Your task to perform on an android device: Find coffee shops on Maps Image 0: 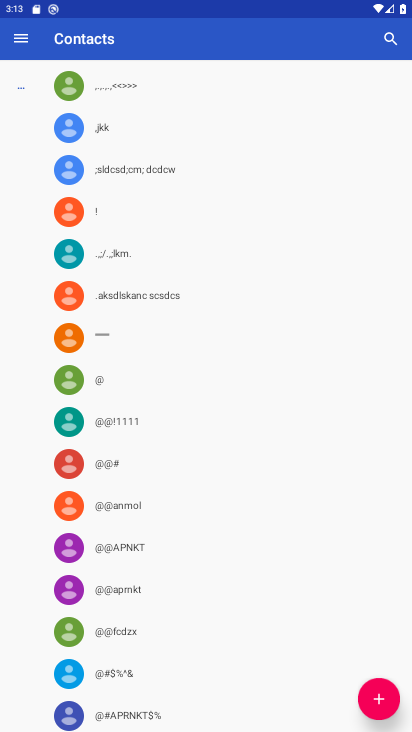
Step 0: press home button
Your task to perform on an android device: Find coffee shops on Maps Image 1: 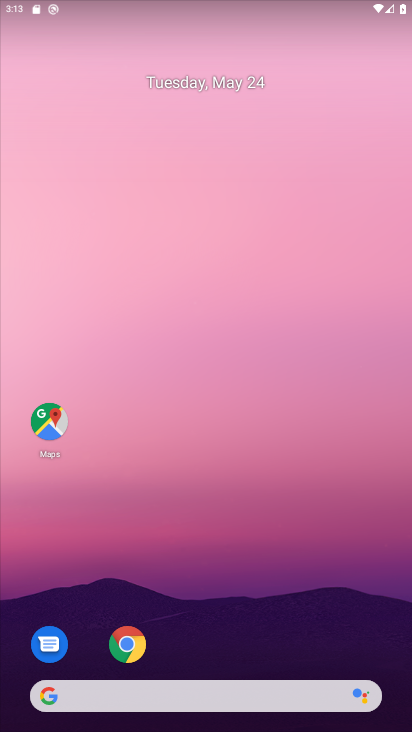
Step 1: drag from (338, 633) to (307, 156)
Your task to perform on an android device: Find coffee shops on Maps Image 2: 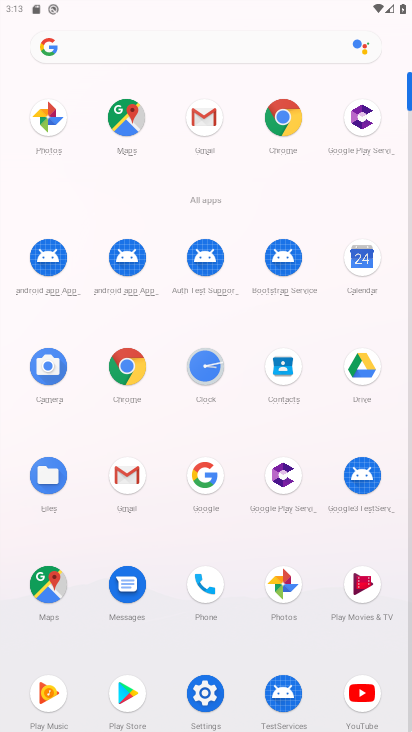
Step 2: click (55, 595)
Your task to perform on an android device: Find coffee shops on Maps Image 3: 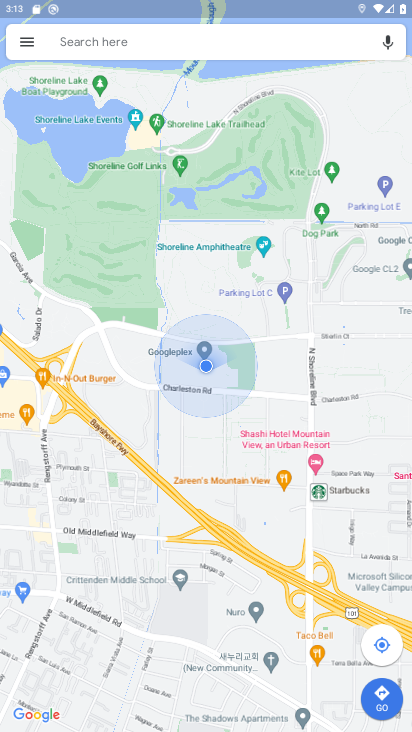
Step 3: click (198, 45)
Your task to perform on an android device: Find coffee shops on Maps Image 4: 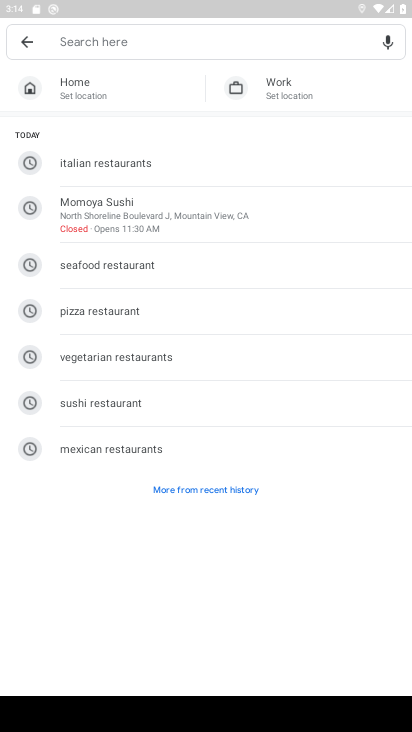
Step 4: type "coffee"
Your task to perform on an android device: Find coffee shops on Maps Image 5: 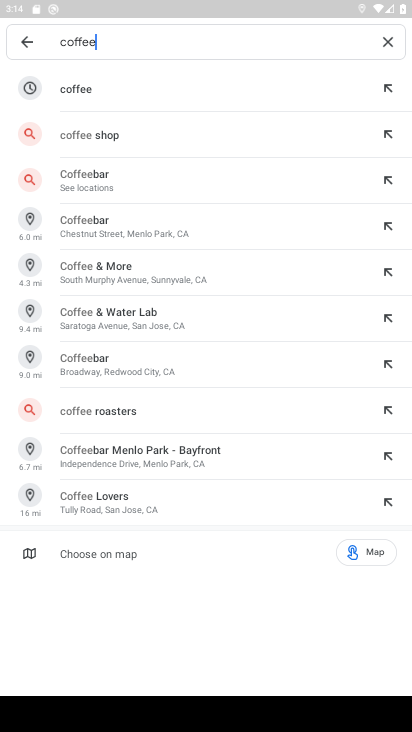
Step 5: click (171, 96)
Your task to perform on an android device: Find coffee shops on Maps Image 6: 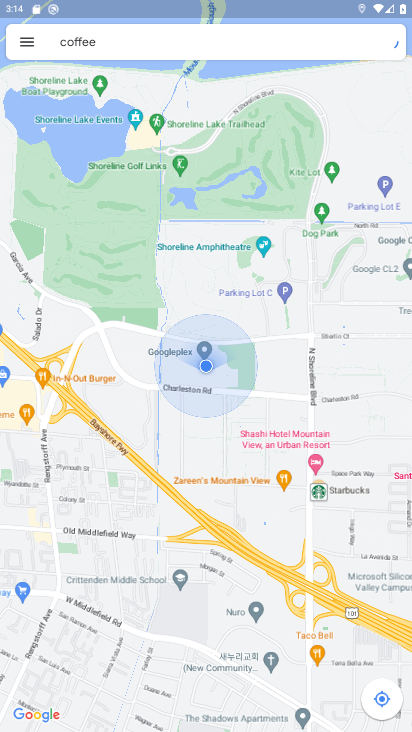
Step 6: task complete